Your task to perform on an android device: Is it going to rain this weekend? Image 0: 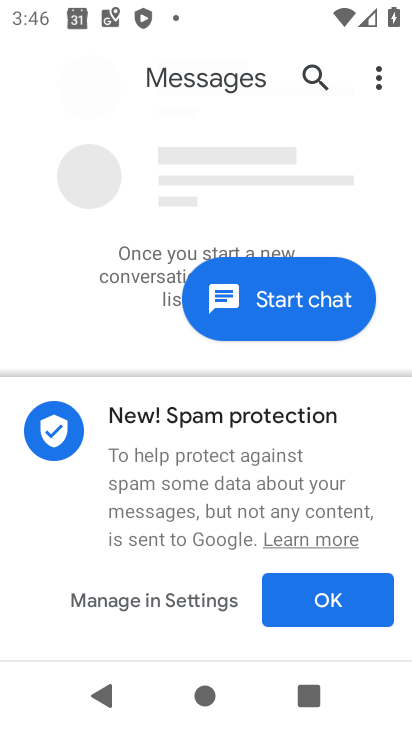
Step 0: click (262, 477)
Your task to perform on an android device: Is it going to rain this weekend? Image 1: 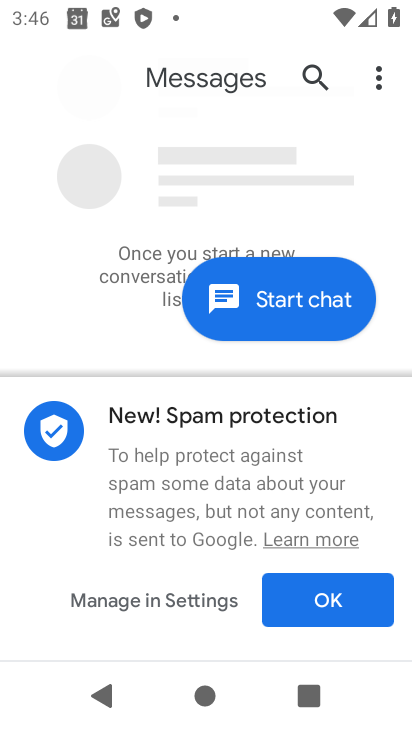
Step 1: press home button
Your task to perform on an android device: Is it going to rain this weekend? Image 2: 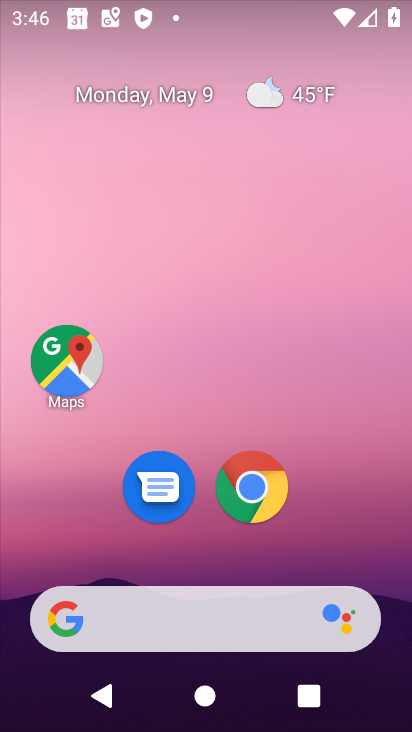
Step 2: click (256, 492)
Your task to perform on an android device: Is it going to rain this weekend? Image 3: 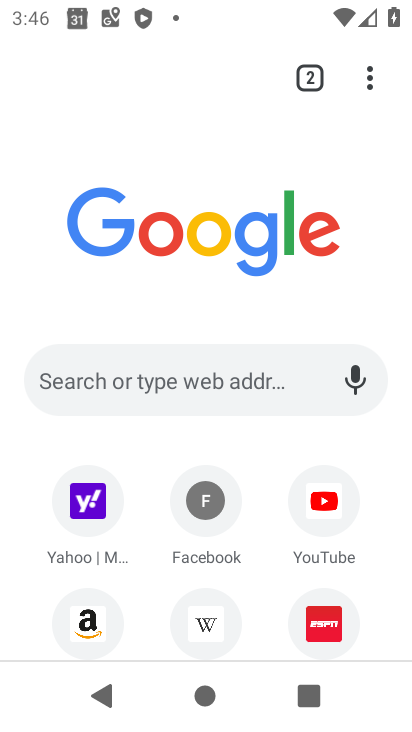
Step 3: click (203, 390)
Your task to perform on an android device: Is it going to rain this weekend? Image 4: 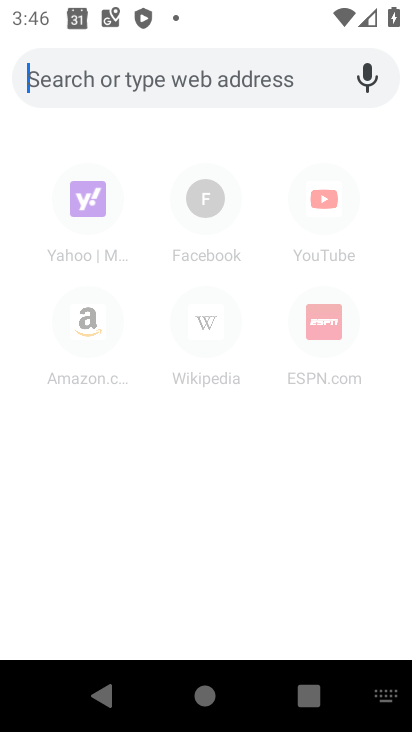
Step 4: type "is it going rain this weekend?"
Your task to perform on an android device: Is it going to rain this weekend? Image 5: 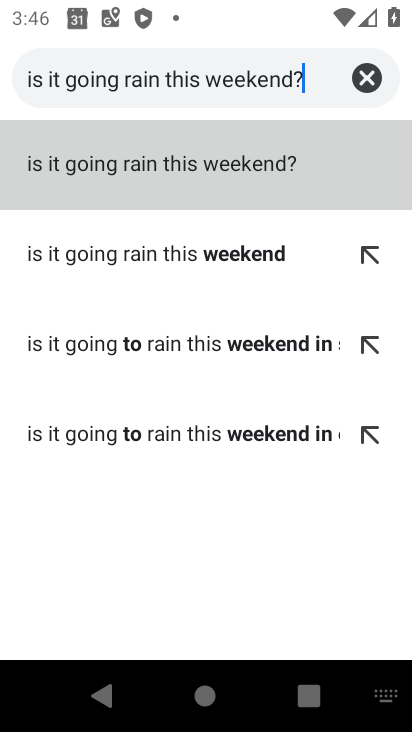
Step 5: click (146, 261)
Your task to perform on an android device: Is it going to rain this weekend? Image 6: 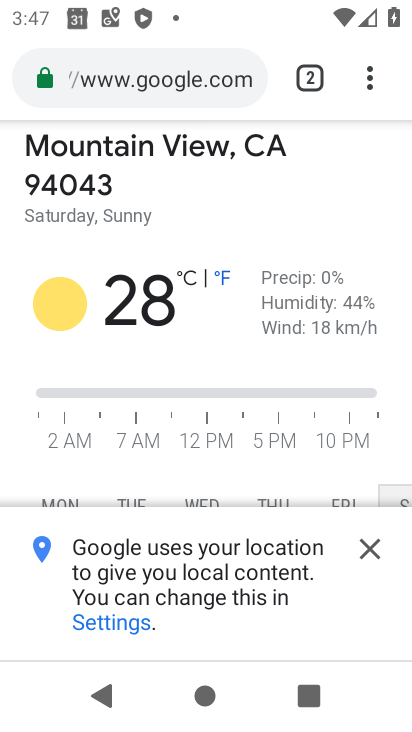
Step 6: click (364, 551)
Your task to perform on an android device: Is it going to rain this weekend? Image 7: 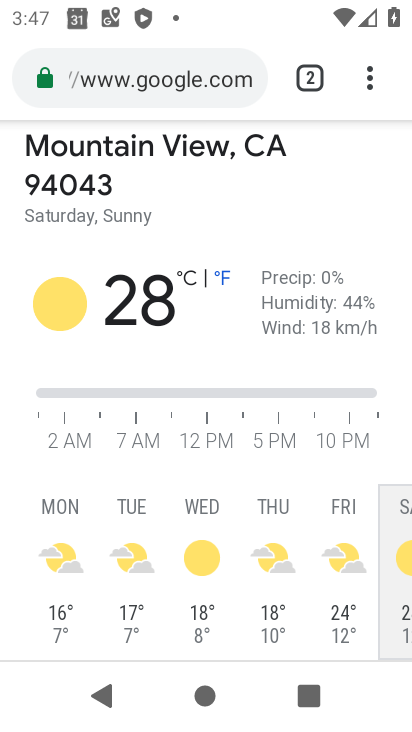
Step 7: task complete